Your task to perform on an android device: Open Yahoo.com Image 0: 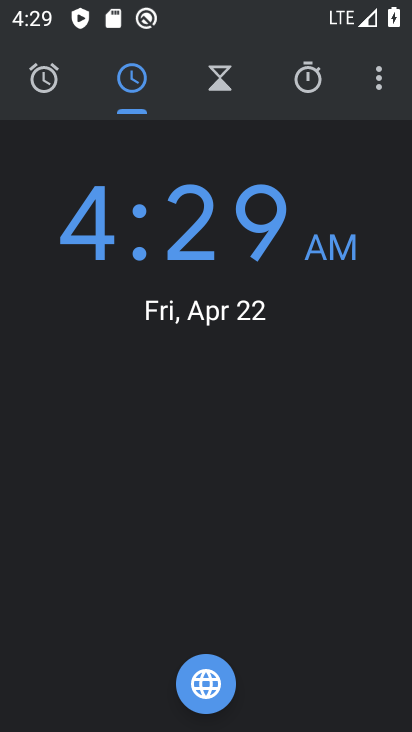
Step 0: press home button
Your task to perform on an android device: Open Yahoo.com Image 1: 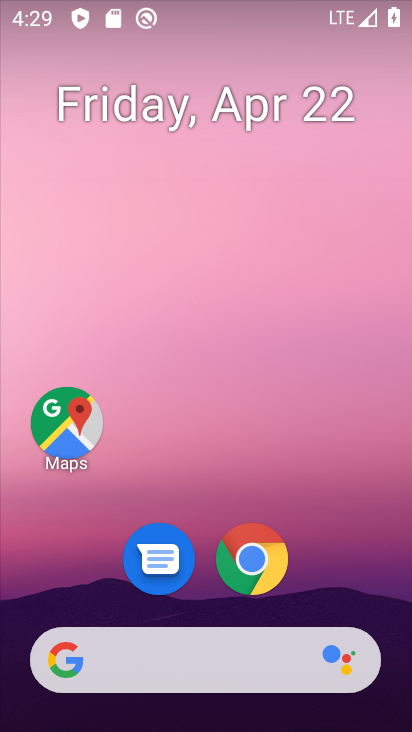
Step 1: click (254, 559)
Your task to perform on an android device: Open Yahoo.com Image 2: 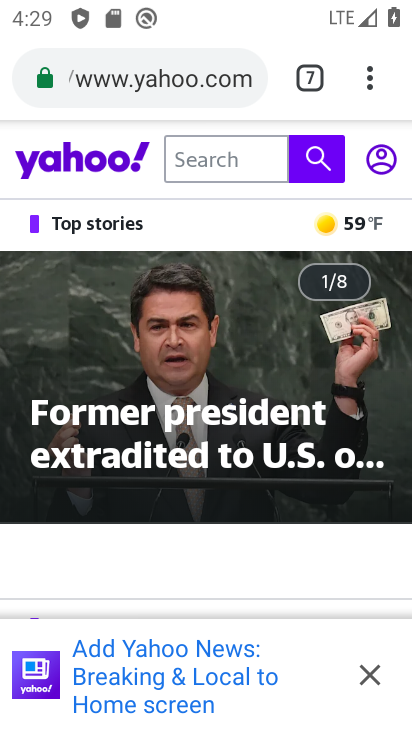
Step 2: task complete